Your task to perform on an android device: Search for sushi restaurants on Maps Image 0: 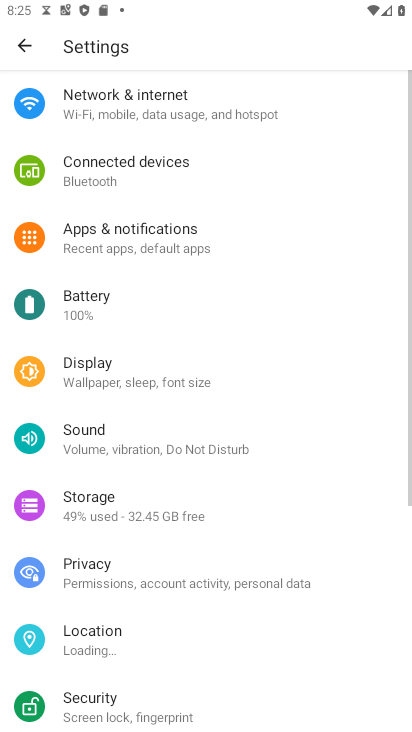
Step 0: press home button
Your task to perform on an android device: Search for sushi restaurants on Maps Image 1: 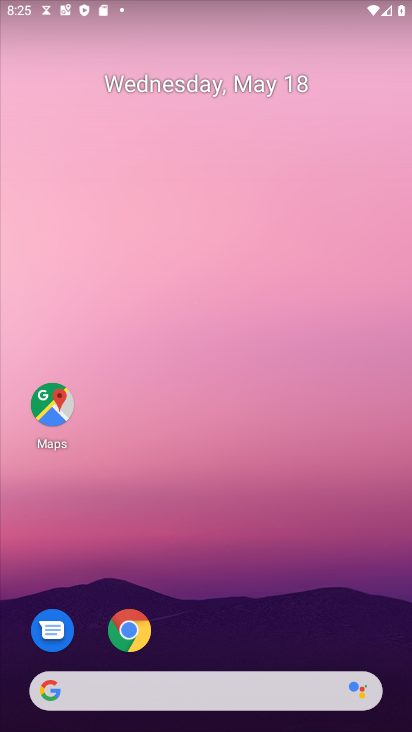
Step 1: click (60, 414)
Your task to perform on an android device: Search for sushi restaurants on Maps Image 2: 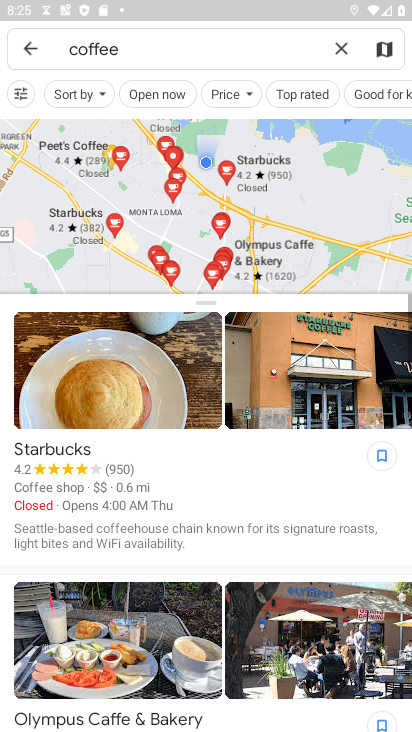
Step 2: click (343, 47)
Your task to perform on an android device: Search for sushi restaurants on Maps Image 3: 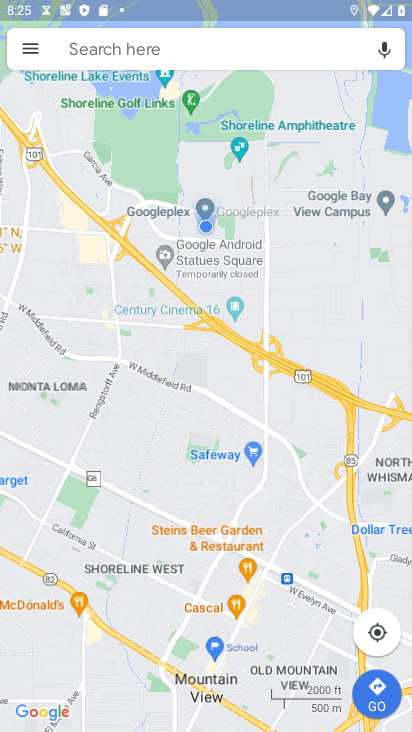
Step 3: click (178, 51)
Your task to perform on an android device: Search for sushi restaurants on Maps Image 4: 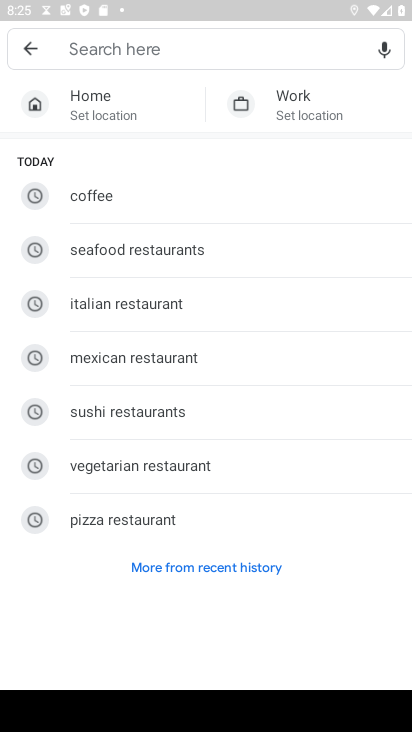
Step 4: click (134, 406)
Your task to perform on an android device: Search for sushi restaurants on Maps Image 5: 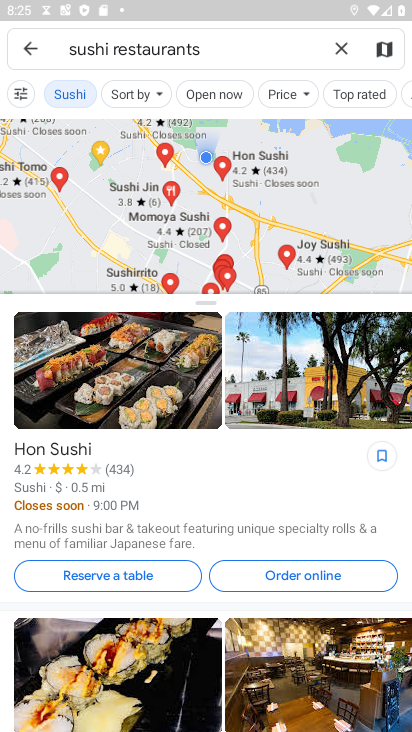
Step 5: task complete